Your task to perform on an android device: toggle translation in the chrome app Image 0: 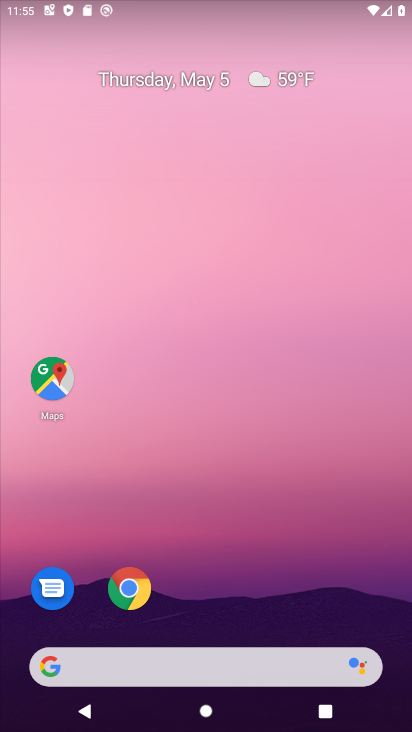
Step 0: drag from (248, 533) to (217, 39)
Your task to perform on an android device: toggle translation in the chrome app Image 1: 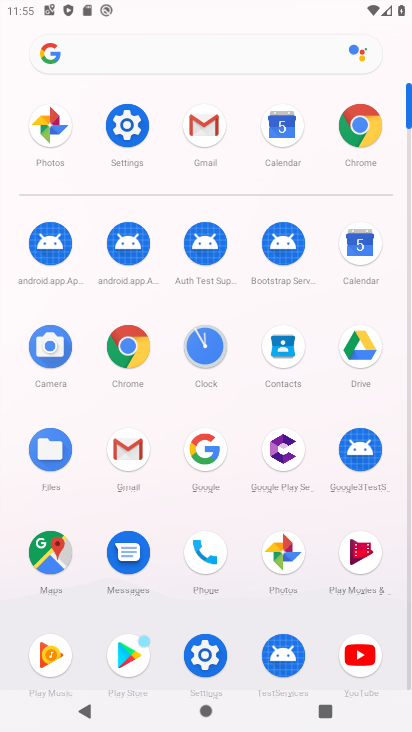
Step 1: click (357, 122)
Your task to perform on an android device: toggle translation in the chrome app Image 2: 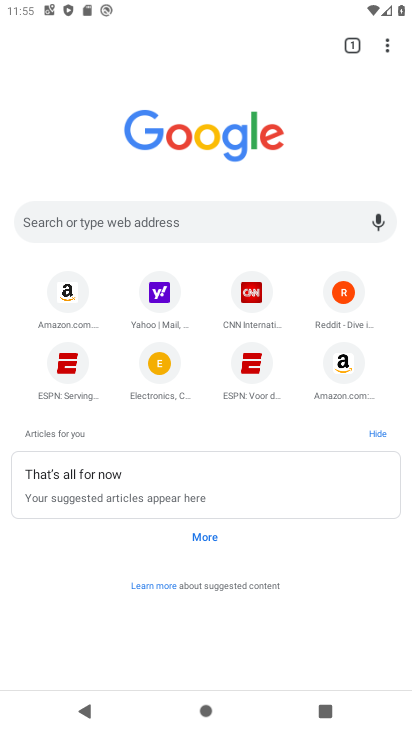
Step 2: drag from (381, 46) to (302, 368)
Your task to perform on an android device: toggle translation in the chrome app Image 3: 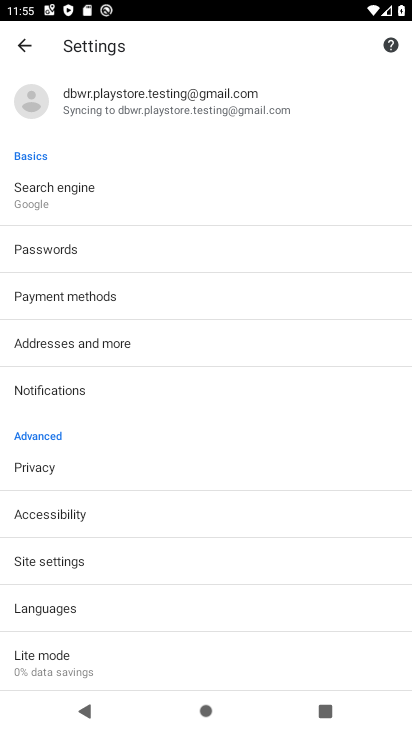
Step 3: click (104, 598)
Your task to perform on an android device: toggle translation in the chrome app Image 4: 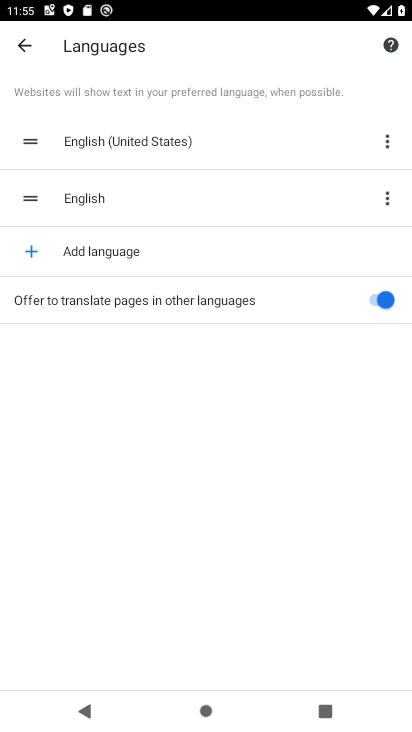
Step 4: click (375, 299)
Your task to perform on an android device: toggle translation in the chrome app Image 5: 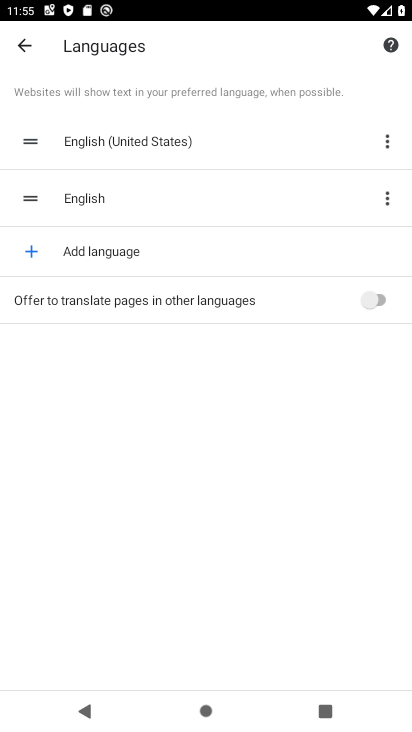
Step 5: task complete